Your task to perform on an android device: toggle data saver in the chrome app Image 0: 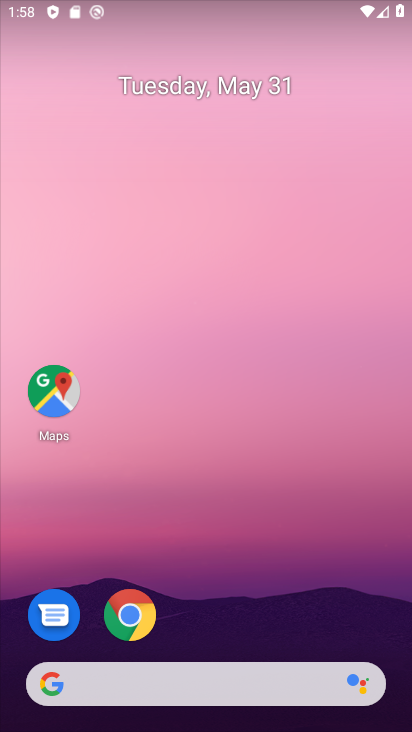
Step 0: click (123, 611)
Your task to perform on an android device: toggle data saver in the chrome app Image 1: 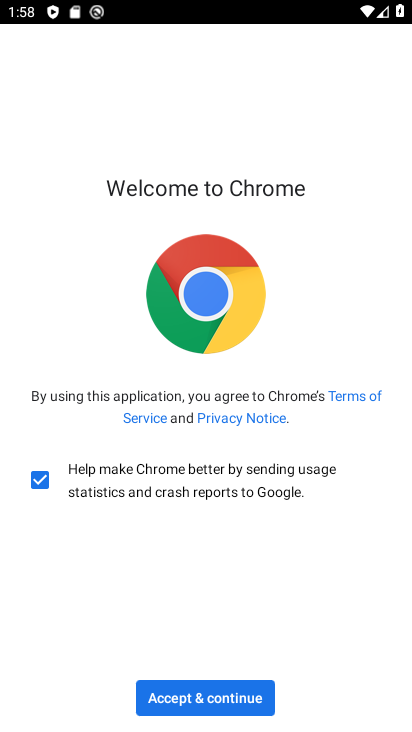
Step 1: click (168, 700)
Your task to perform on an android device: toggle data saver in the chrome app Image 2: 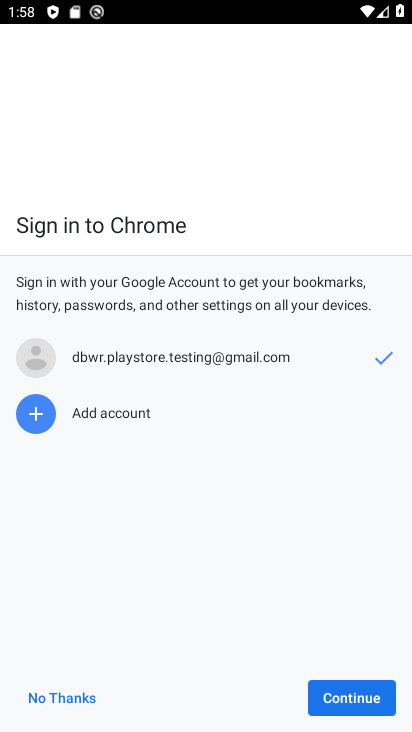
Step 2: click (375, 705)
Your task to perform on an android device: toggle data saver in the chrome app Image 3: 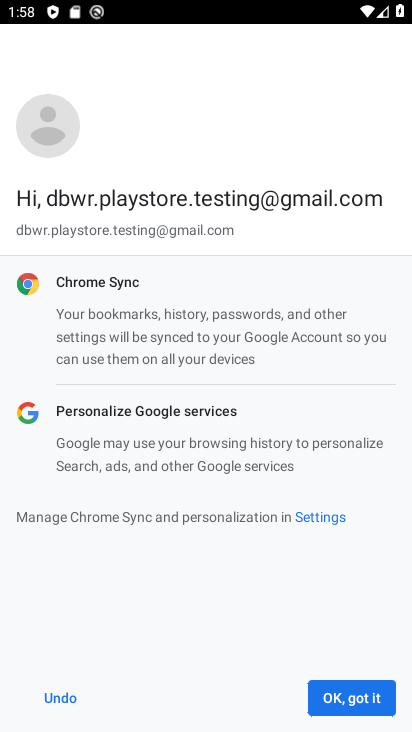
Step 3: click (340, 696)
Your task to perform on an android device: toggle data saver in the chrome app Image 4: 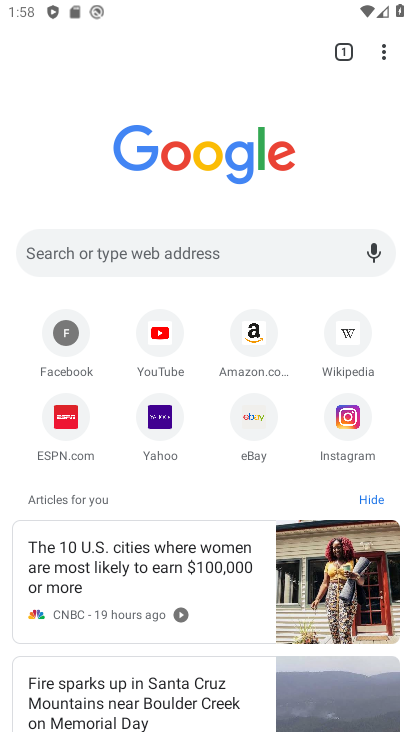
Step 4: drag from (380, 50) to (221, 435)
Your task to perform on an android device: toggle data saver in the chrome app Image 5: 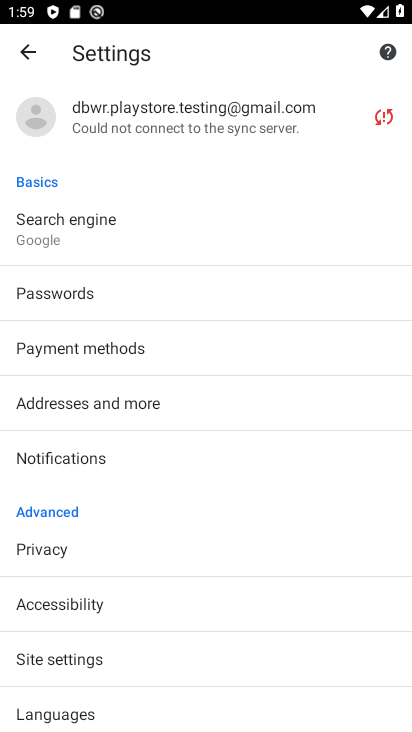
Step 5: drag from (132, 627) to (198, 174)
Your task to perform on an android device: toggle data saver in the chrome app Image 6: 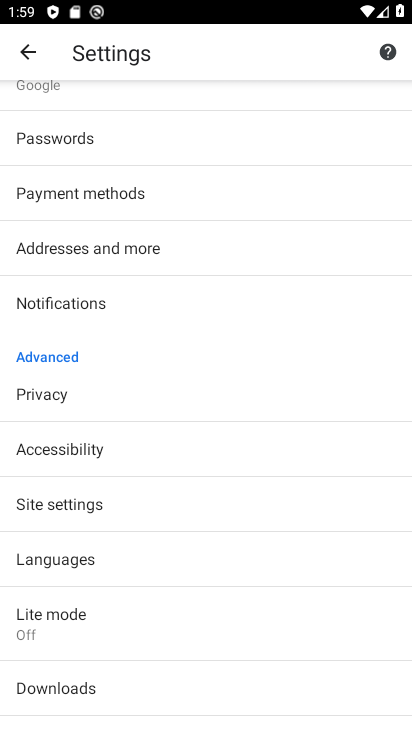
Step 6: click (73, 613)
Your task to perform on an android device: toggle data saver in the chrome app Image 7: 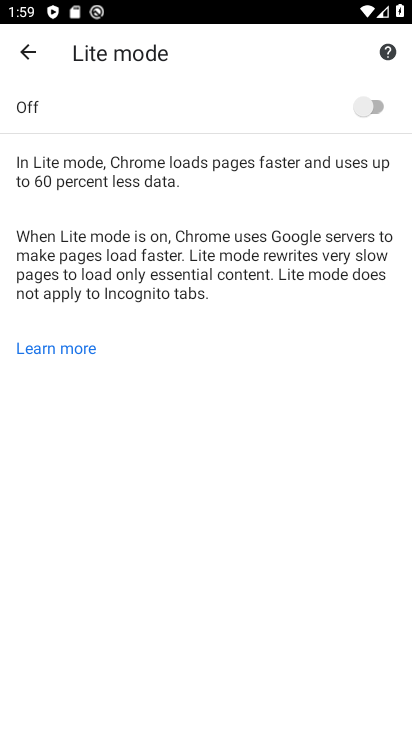
Step 7: click (371, 107)
Your task to perform on an android device: toggle data saver in the chrome app Image 8: 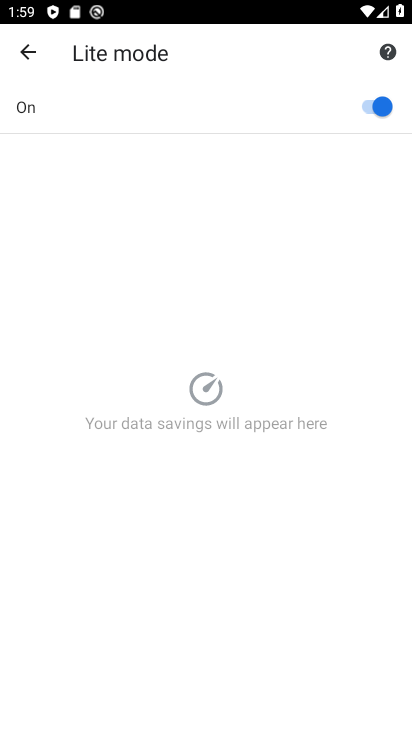
Step 8: task complete